Your task to perform on an android device: Open Google Maps and go to "Timeline" Image 0: 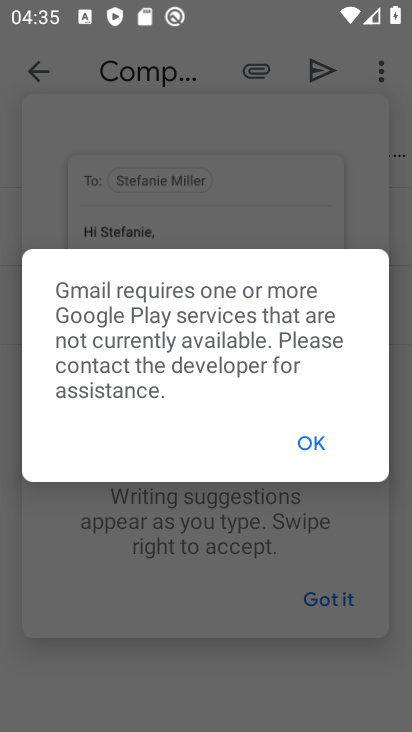
Step 0: press home button
Your task to perform on an android device: Open Google Maps and go to "Timeline" Image 1: 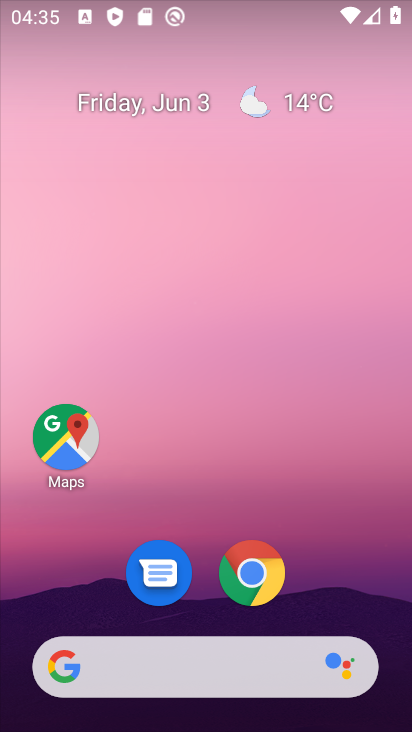
Step 1: drag from (143, 681) to (293, 3)
Your task to perform on an android device: Open Google Maps and go to "Timeline" Image 2: 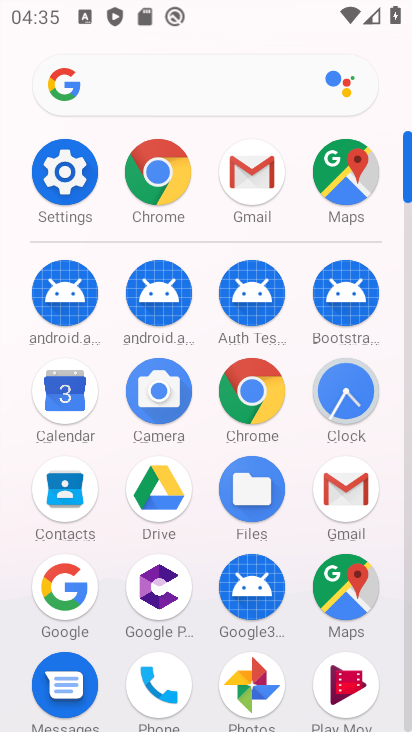
Step 2: click (45, 176)
Your task to perform on an android device: Open Google Maps and go to "Timeline" Image 3: 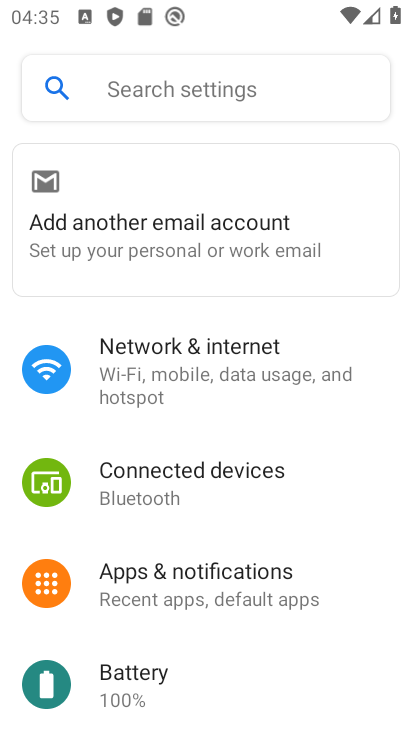
Step 3: press home button
Your task to perform on an android device: Open Google Maps and go to "Timeline" Image 4: 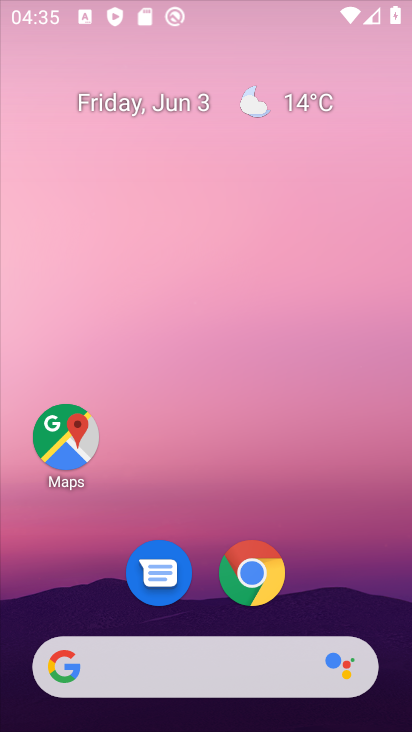
Step 4: drag from (246, 690) to (387, 72)
Your task to perform on an android device: Open Google Maps and go to "Timeline" Image 5: 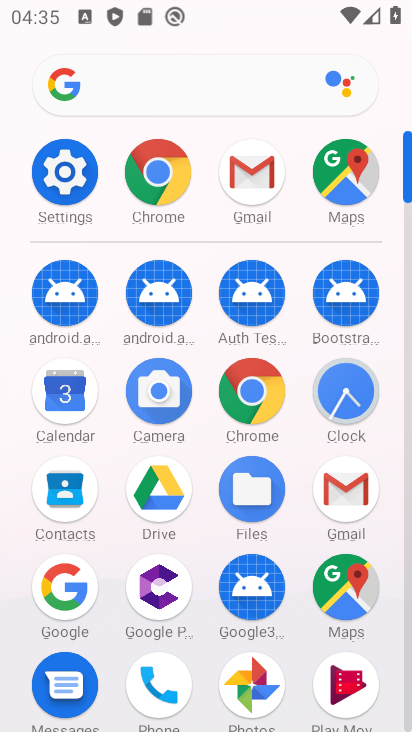
Step 5: click (328, 578)
Your task to perform on an android device: Open Google Maps and go to "Timeline" Image 6: 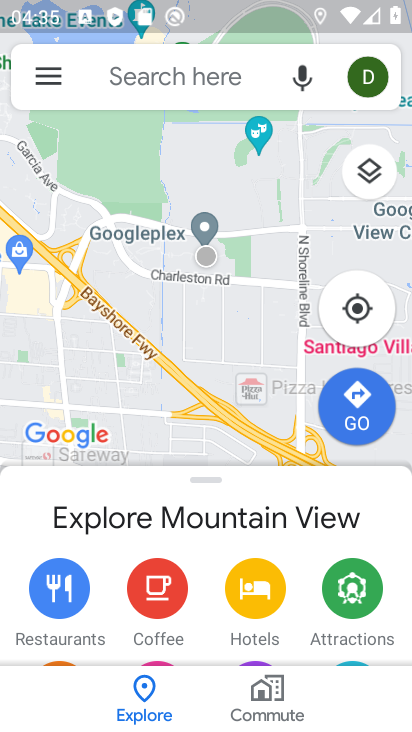
Step 6: click (41, 68)
Your task to perform on an android device: Open Google Maps and go to "Timeline" Image 7: 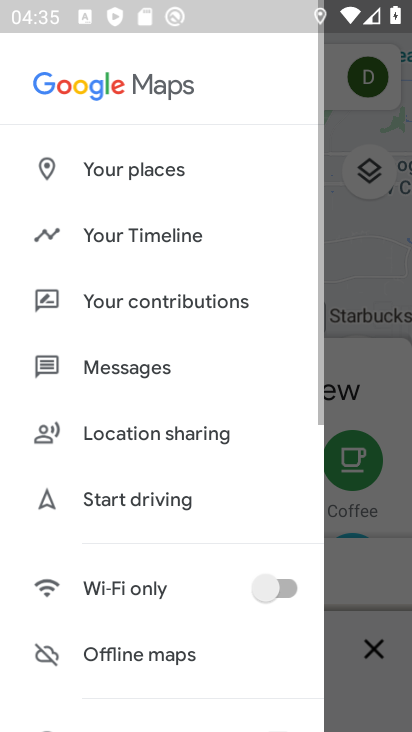
Step 7: click (50, 81)
Your task to perform on an android device: Open Google Maps and go to "Timeline" Image 8: 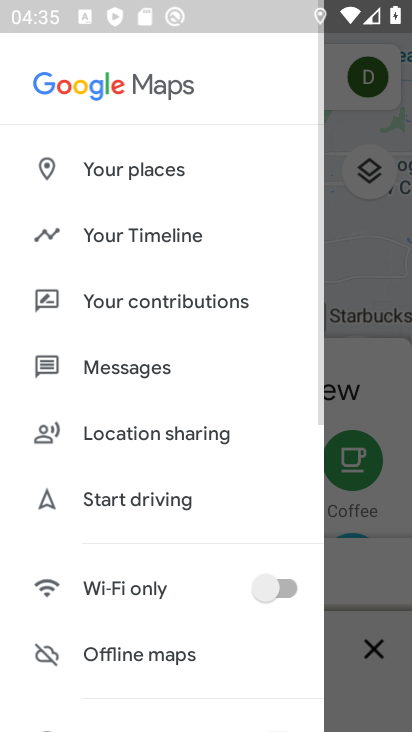
Step 8: click (164, 236)
Your task to perform on an android device: Open Google Maps and go to "Timeline" Image 9: 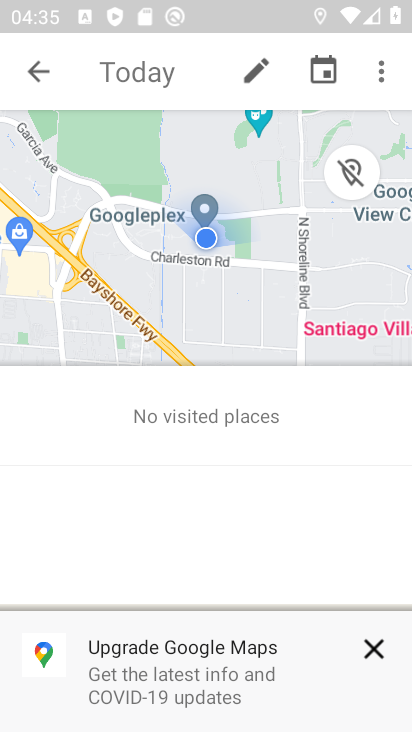
Step 9: task complete